Your task to perform on an android device: Turn on the flashlight Image 0: 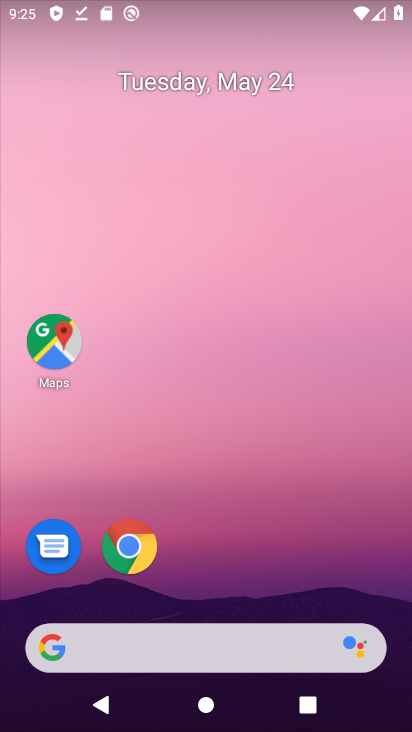
Step 0: drag from (279, 540) to (226, 101)
Your task to perform on an android device: Turn on the flashlight Image 1: 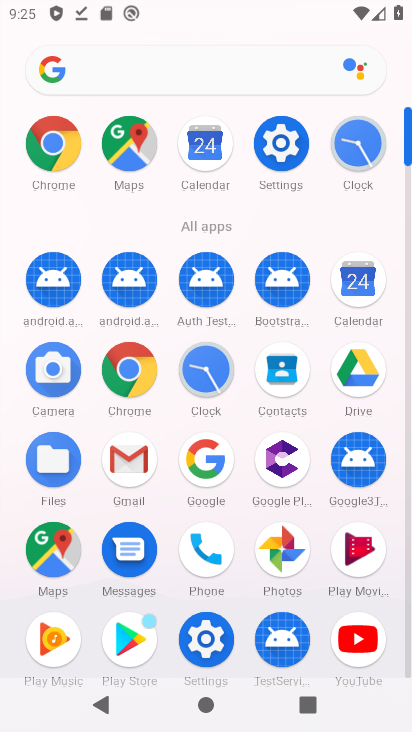
Step 1: click (286, 203)
Your task to perform on an android device: Turn on the flashlight Image 2: 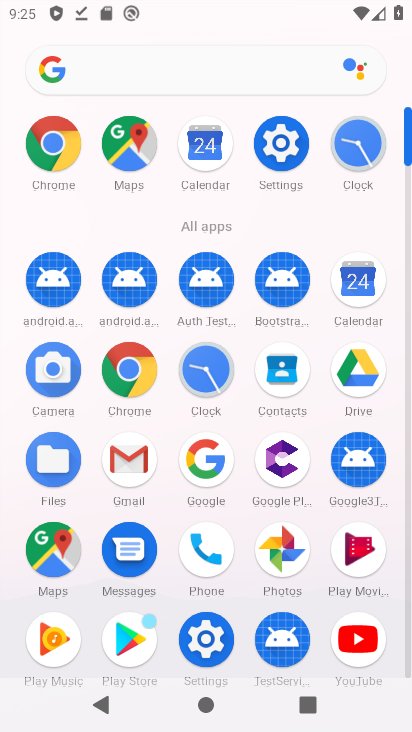
Step 2: click (276, 136)
Your task to perform on an android device: Turn on the flashlight Image 3: 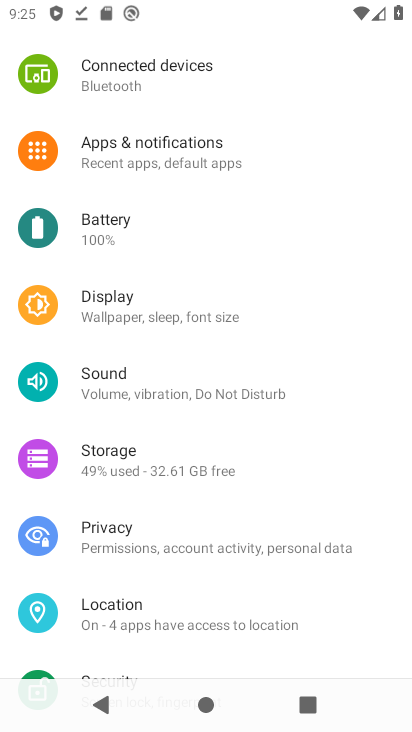
Step 3: drag from (208, 185) to (182, 668)
Your task to perform on an android device: Turn on the flashlight Image 4: 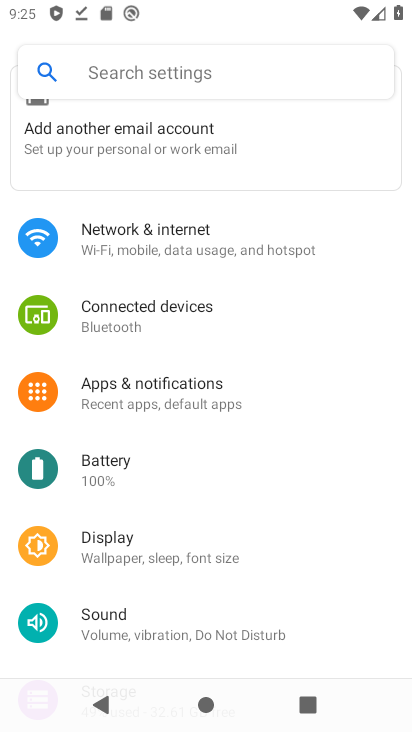
Step 4: click (123, 240)
Your task to perform on an android device: Turn on the flashlight Image 5: 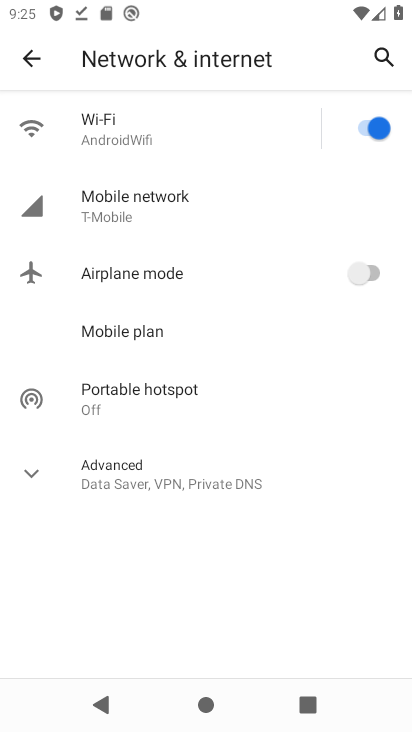
Step 5: task complete